Your task to perform on an android device: check android version Image 0: 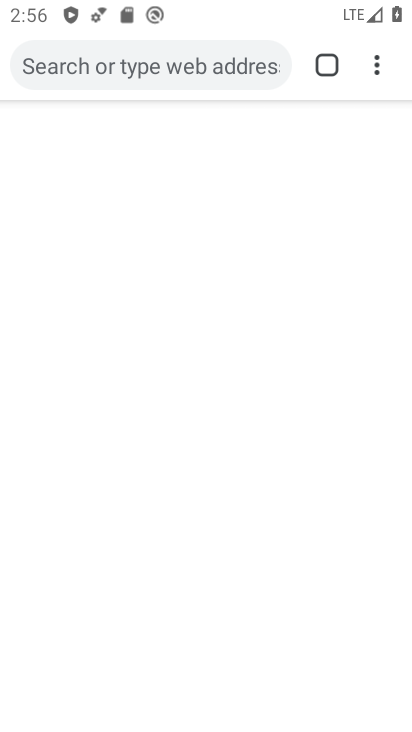
Step 0: drag from (390, 630) to (319, 345)
Your task to perform on an android device: check android version Image 1: 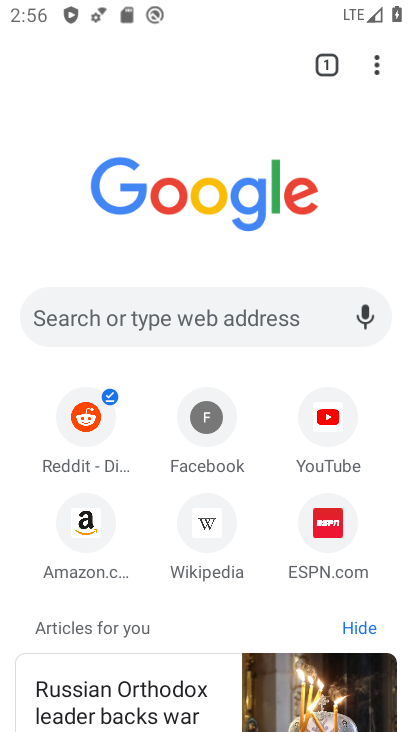
Step 1: press home button
Your task to perform on an android device: check android version Image 2: 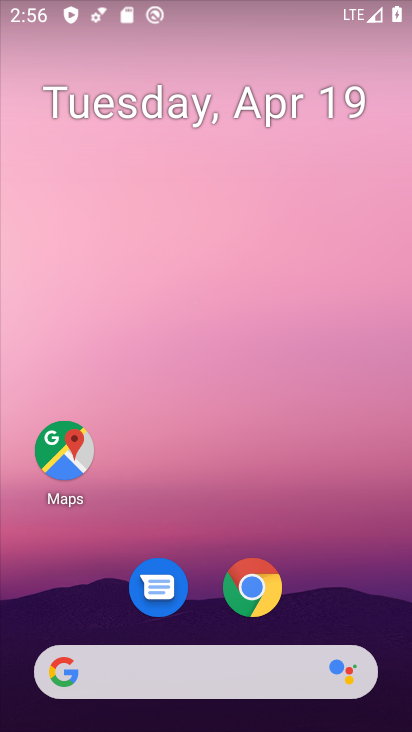
Step 2: drag from (390, 608) to (216, 96)
Your task to perform on an android device: check android version Image 3: 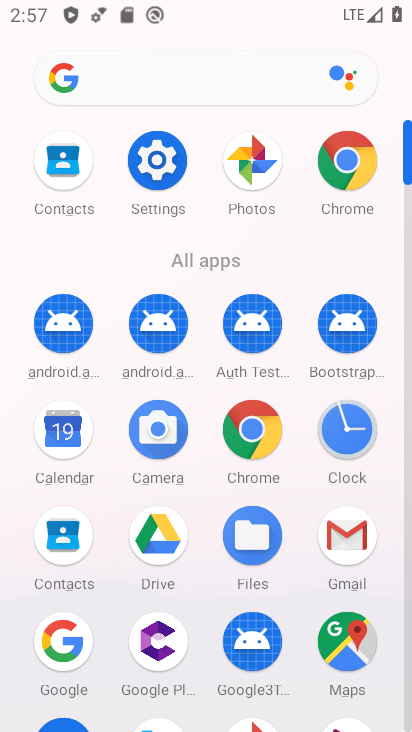
Step 3: click (151, 161)
Your task to perform on an android device: check android version Image 4: 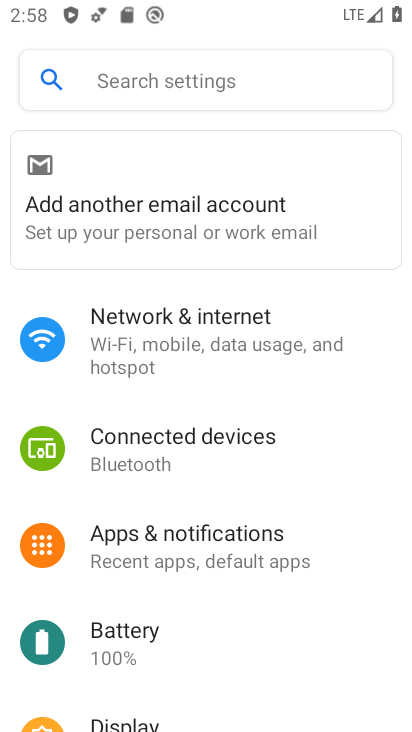
Step 4: drag from (202, 590) to (232, 32)
Your task to perform on an android device: check android version Image 5: 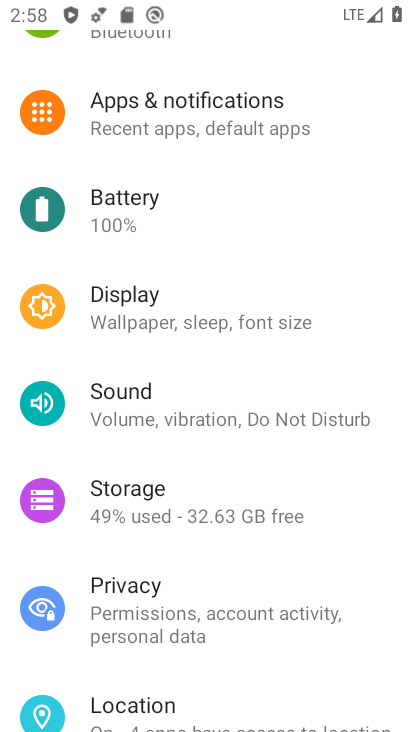
Step 5: drag from (106, 623) to (278, 78)
Your task to perform on an android device: check android version Image 6: 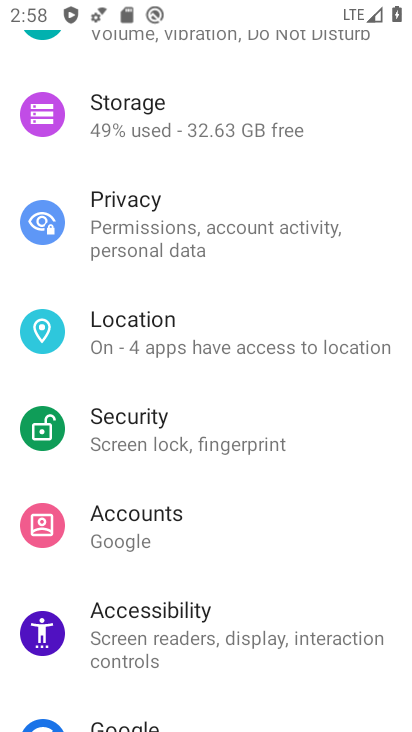
Step 6: drag from (180, 661) to (346, 67)
Your task to perform on an android device: check android version Image 7: 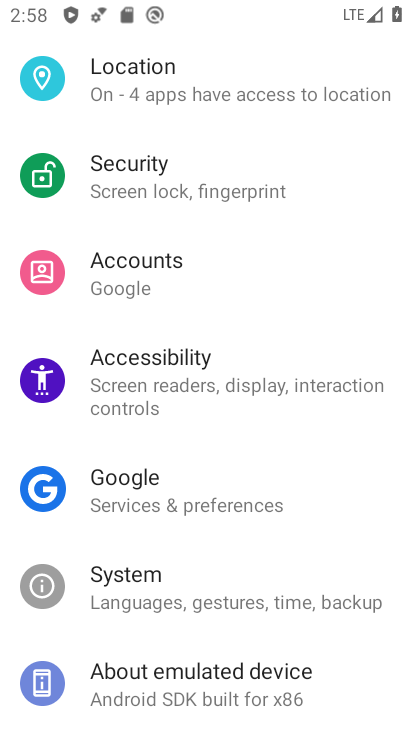
Step 7: click (149, 693)
Your task to perform on an android device: check android version Image 8: 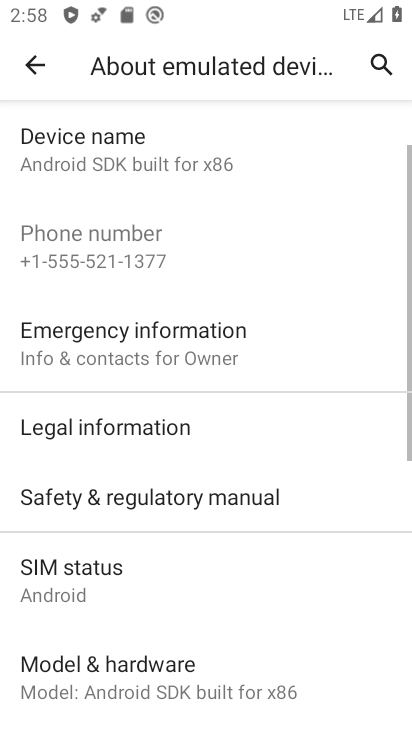
Step 8: drag from (144, 663) to (205, 155)
Your task to perform on an android device: check android version Image 9: 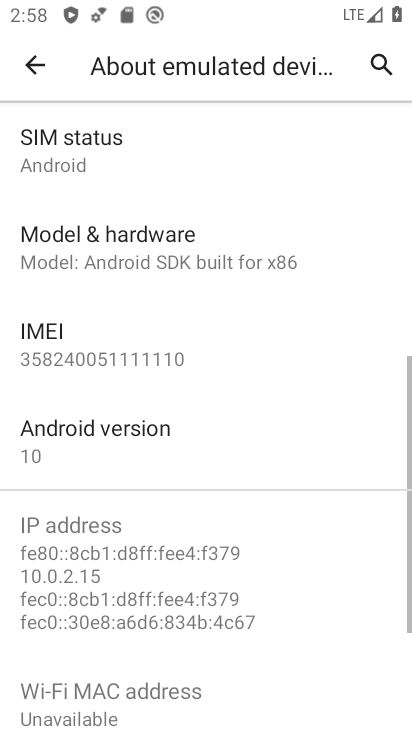
Step 9: click (94, 454)
Your task to perform on an android device: check android version Image 10: 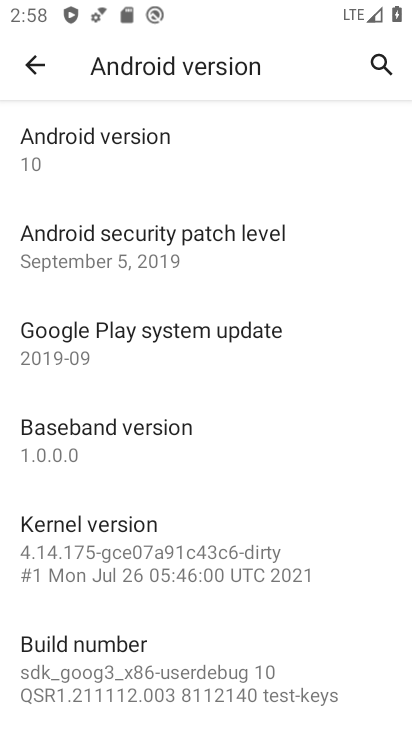
Step 10: task complete